Your task to perform on an android device: turn off notifications in google photos Image 0: 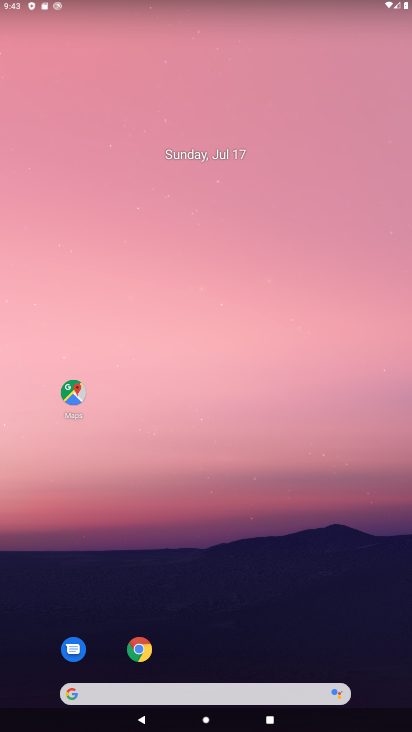
Step 0: drag from (12, 703) to (179, 141)
Your task to perform on an android device: turn off notifications in google photos Image 1: 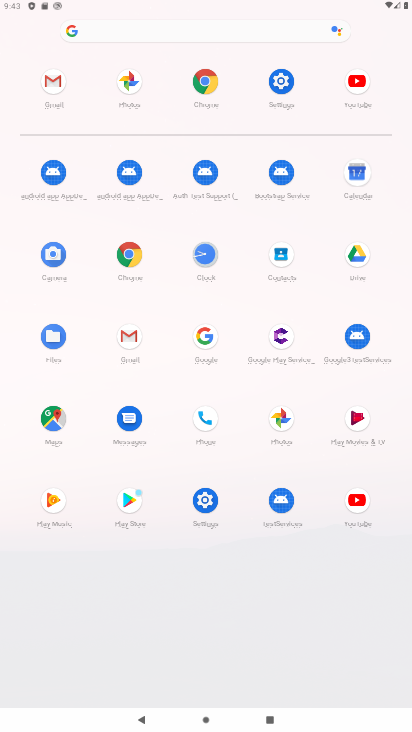
Step 1: click (287, 426)
Your task to perform on an android device: turn off notifications in google photos Image 2: 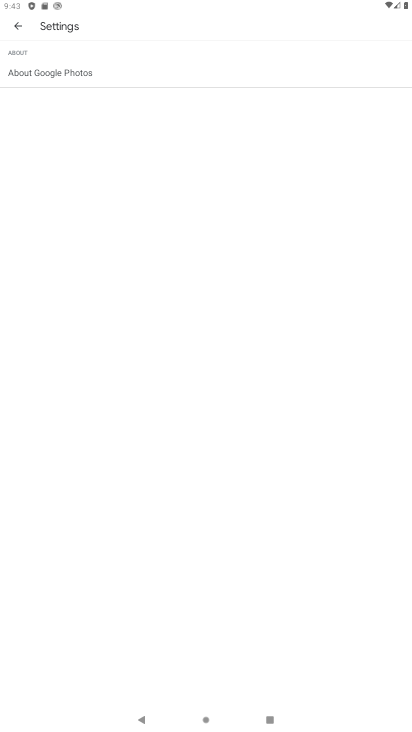
Step 2: click (24, 26)
Your task to perform on an android device: turn off notifications in google photos Image 3: 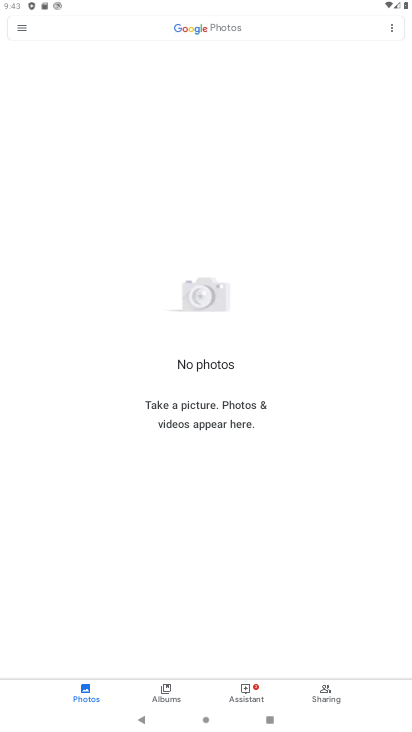
Step 3: task complete